Your task to perform on an android device: turn on wifi Image 0: 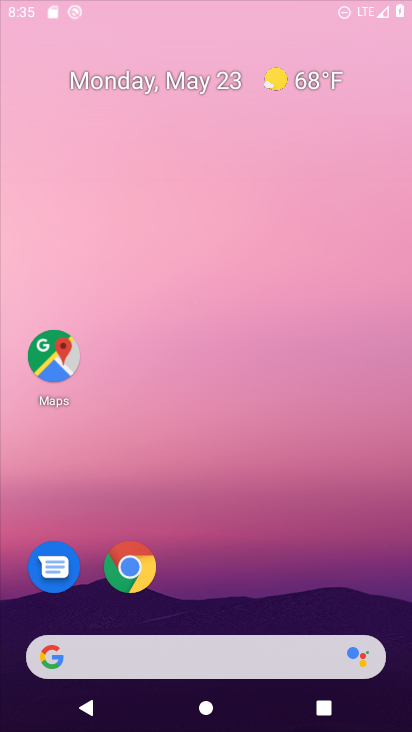
Step 0: click (298, 58)
Your task to perform on an android device: turn on wifi Image 1: 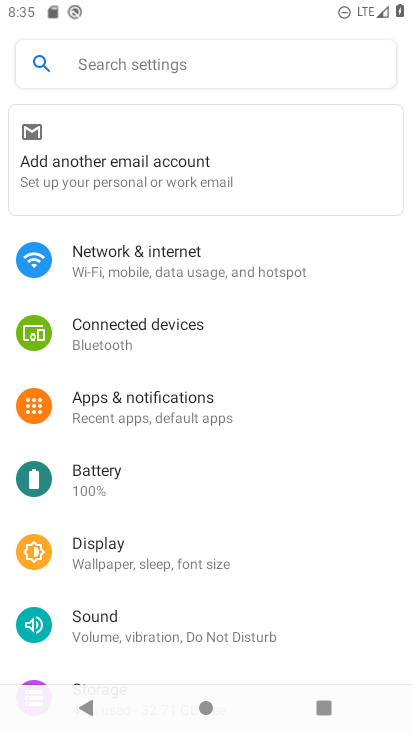
Step 1: click (76, 268)
Your task to perform on an android device: turn on wifi Image 2: 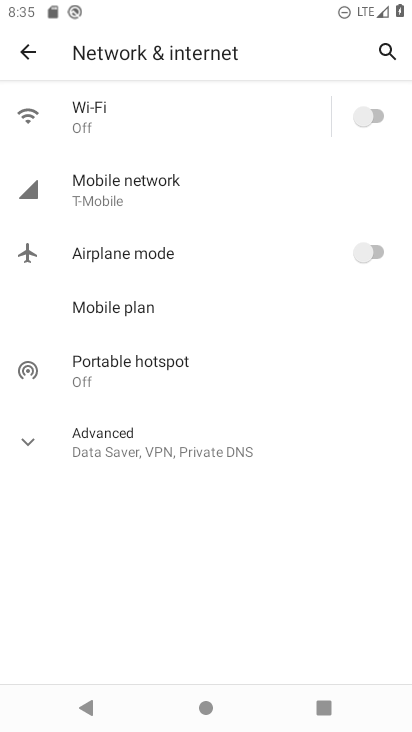
Step 2: click (180, 126)
Your task to perform on an android device: turn on wifi Image 3: 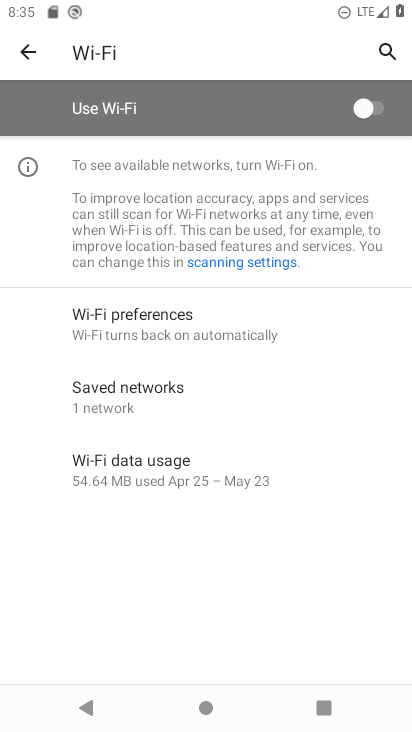
Step 3: click (283, 113)
Your task to perform on an android device: turn on wifi Image 4: 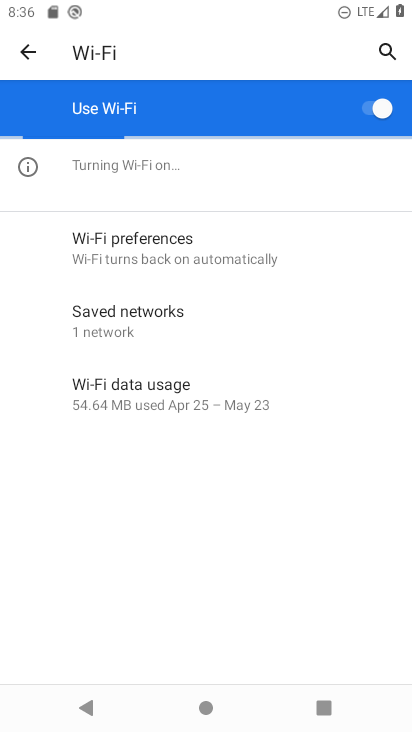
Step 4: task complete